Your task to perform on an android device: Do I have any events tomorrow? Image 0: 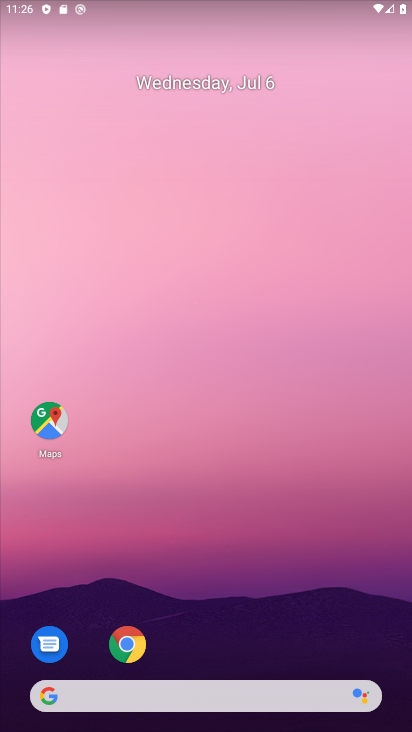
Step 0: drag from (259, 678) to (263, 119)
Your task to perform on an android device: Do I have any events tomorrow? Image 1: 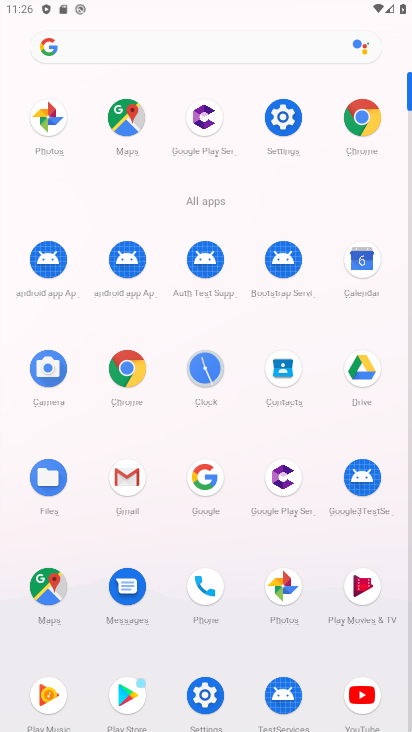
Step 1: click (371, 276)
Your task to perform on an android device: Do I have any events tomorrow? Image 2: 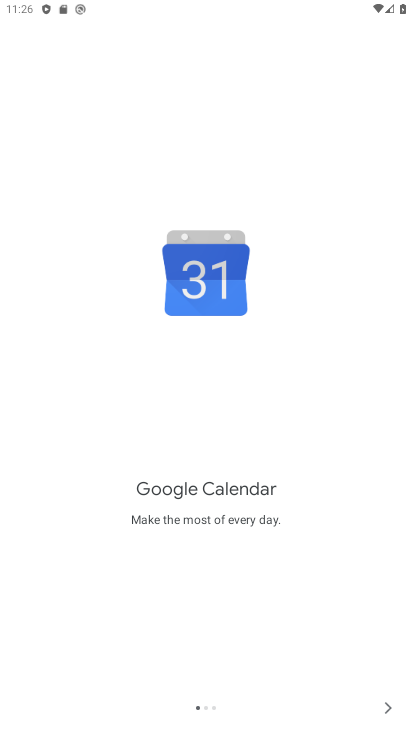
Step 2: click (384, 708)
Your task to perform on an android device: Do I have any events tomorrow? Image 3: 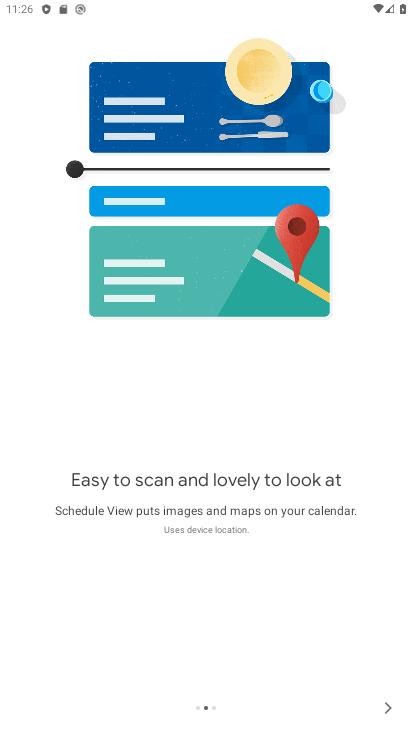
Step 3: click (380, 709)
Your task to perform on an android device: Do I have any events tomorrow? Image 4: 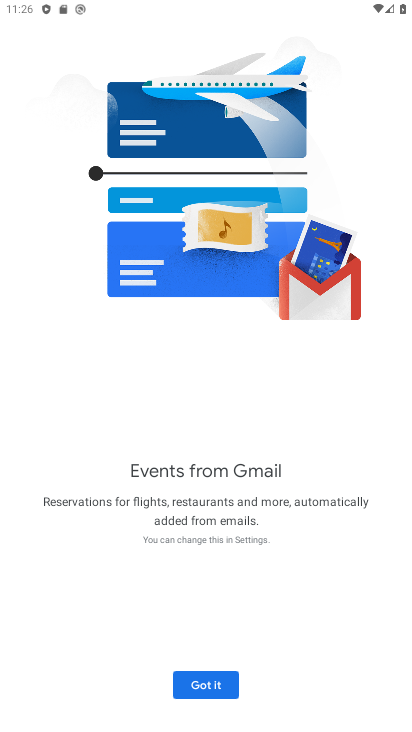
Step 4: click (190, 685)
Your task to perform on an android device: Do I have any events tomorrow? Image 5: 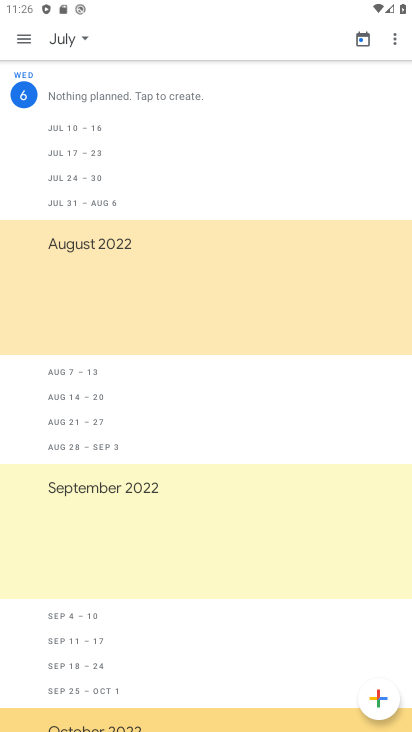
Step 5: click (25, 37)
Your task to perform on an android device: Do I have any events tomorrow? Image 6: 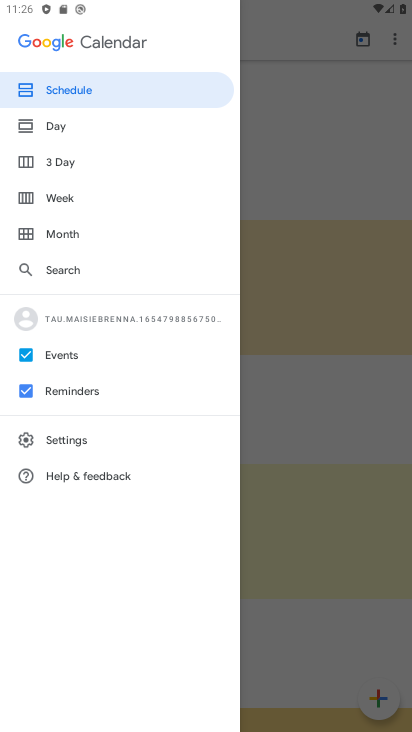
Step 6: click (143, 90)
Your task to perform on an android device: Do I have any events tomorrow? Image 7: 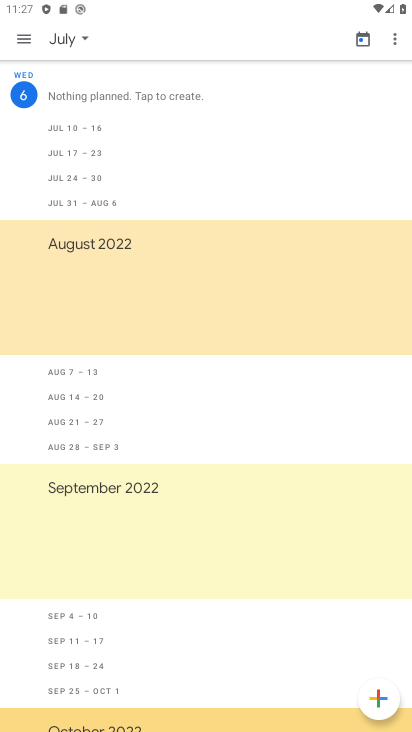
Step 7: task complete